Your task to perform on an android device: clear history in the chrome app Image 0: 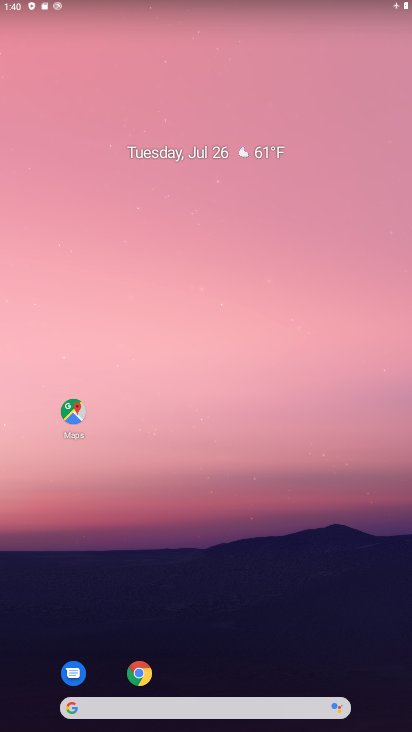
Step 0: drag from (182, 631) to (319, 34)
Your task to perform on an android device: clear history in the chrome app Image 1: 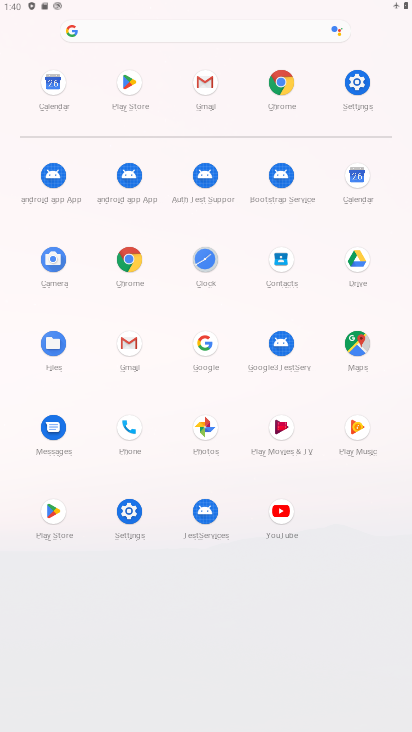
Step 1: click (130, 261)
Your task to perform on an android device: clear history in the chrome app Image 2: 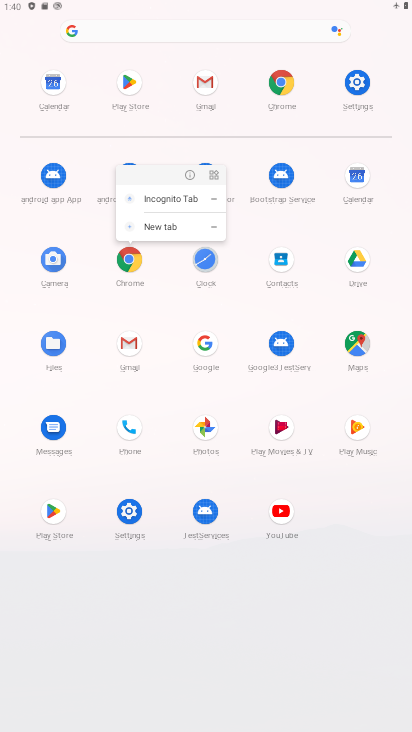
Step 2: click (185, 173)
Your task to perform on an android device: clear history in the chrome app Image 3: 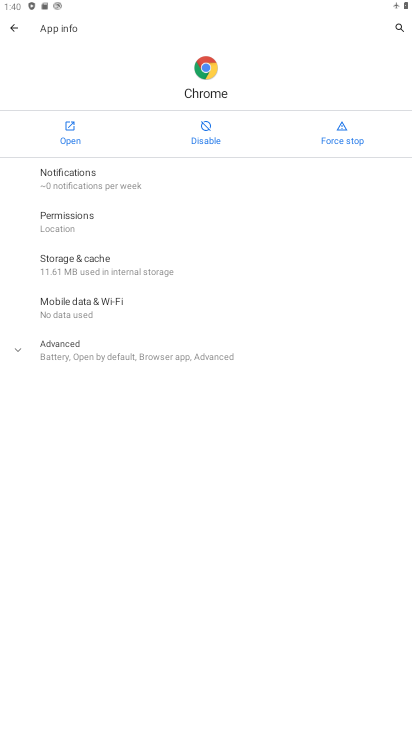
Step 3: click (72, 129)
Your task to perform on an android device: clear history in the chrome app Image 4: 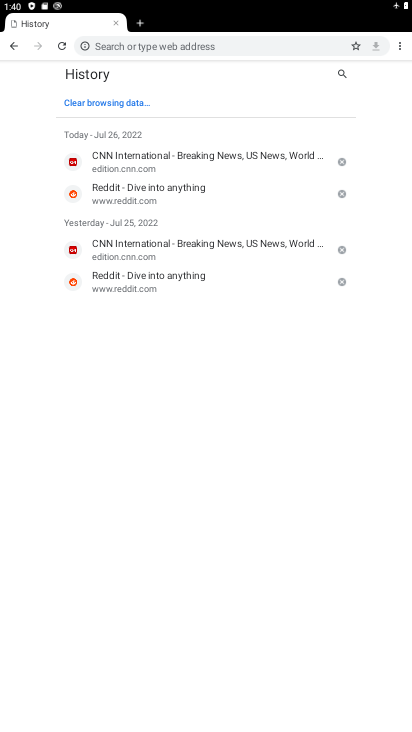
Step 4: click (85, 104)
Your task to perform on an android device: clear history in the chrome app Image 5: 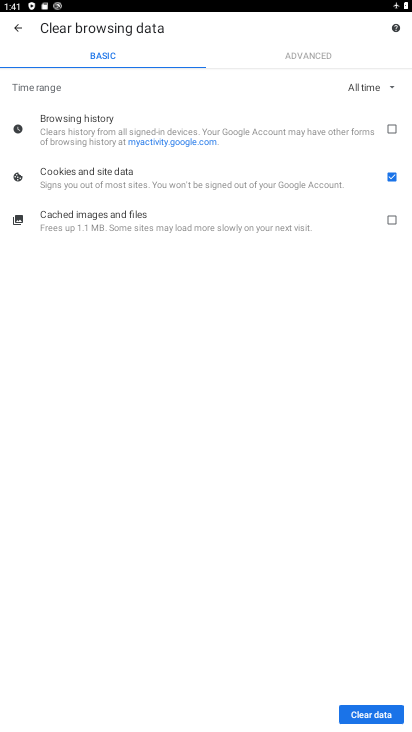
Step 5: click (382, 131)
Your task to perform on an android device: clear history in the chrome app Image 6: 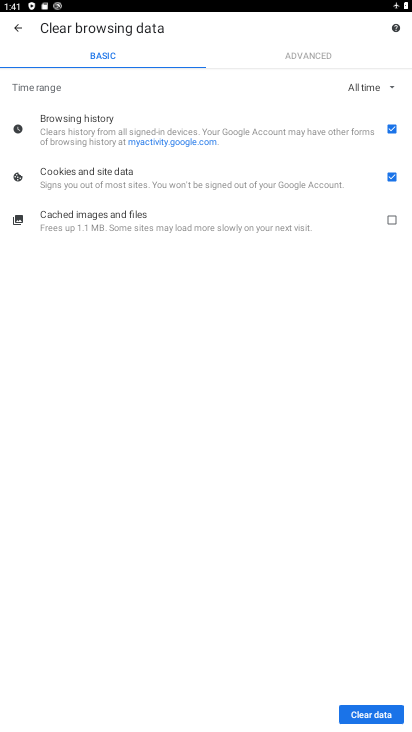
Step 6: click (387, 219)
Your task to perform on an android device: clear history in the chrome app Image 7: 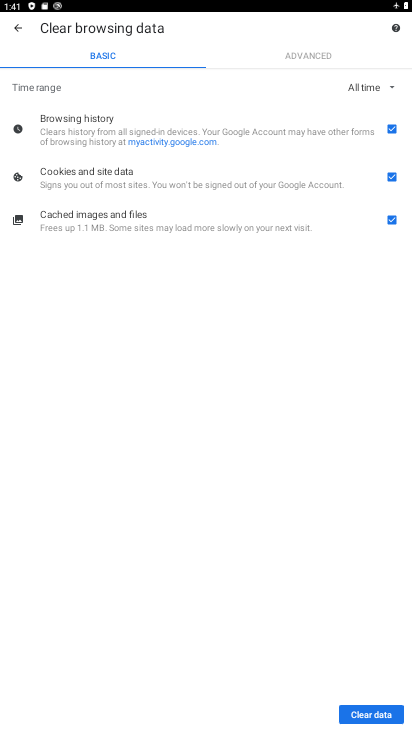
Step 7: click (353, 703)
Your task to perform on an android device: clear history in the chrome app Image 8: 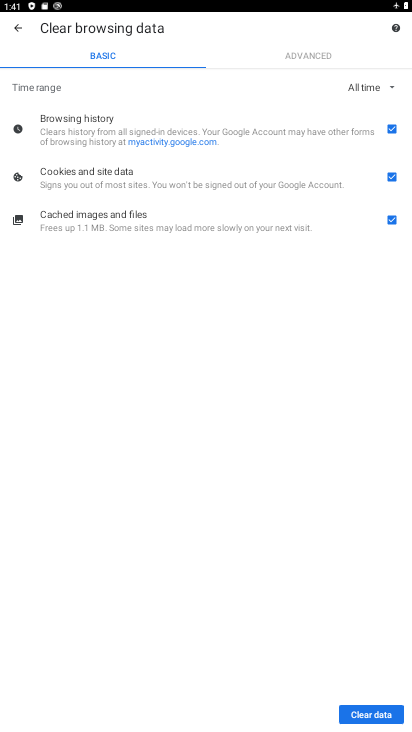
Step 8: click (355, 712)
Your task to perform on an android device: clear history in the chrome app Image 9: 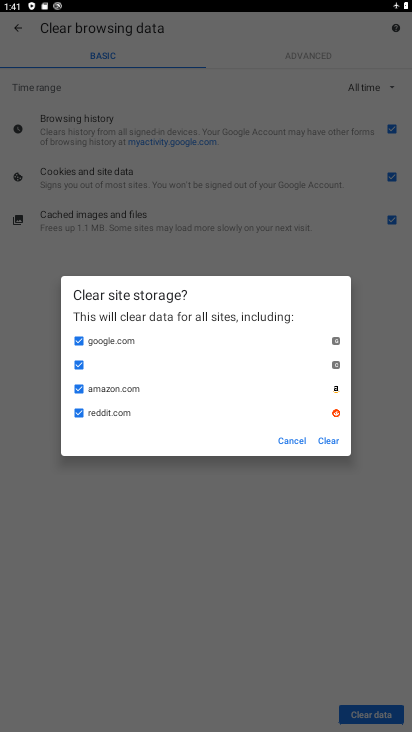
Step 9: click (328, 441)
Your task to perform on an android device: clear history in the chrome app Image 10: 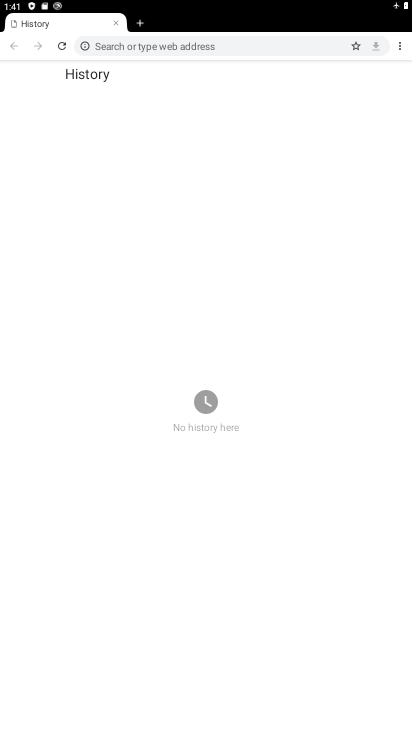
Step 10: task complete